Your task to perform on an android device: Open calendar and show me the third week of next month Image 0: 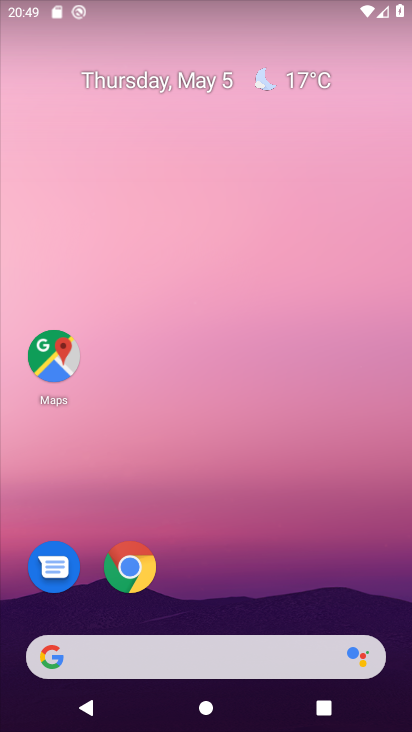
Step 0: drag from (280, 529) to (315, 26)
Your task to perform on an android device: Open calendar and show me the third week of next month Image 1: 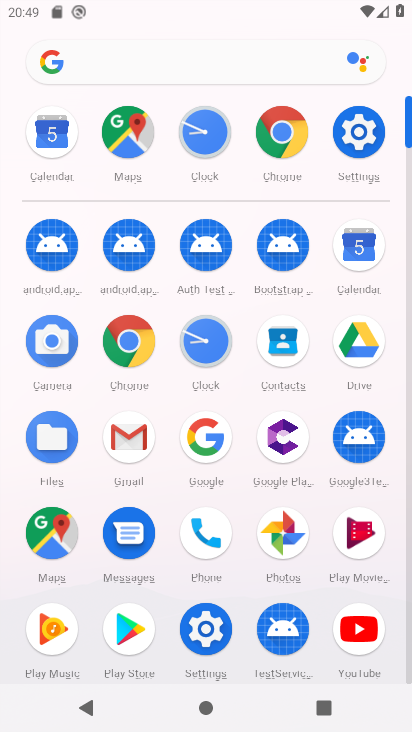
Step 1: click (351, 248)
Your task to perform on an android device: Open calendar and show me the third week of next month Image 2: 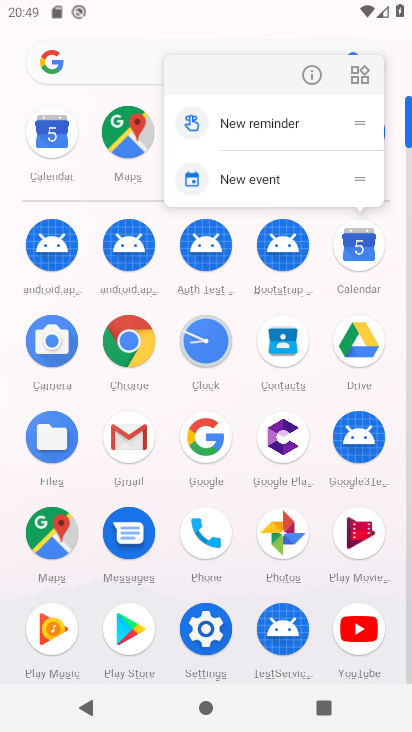
Step 2: click (361, 242)
Your task to perform on an android device: Open calendar and show me the third week of next month Image 3: 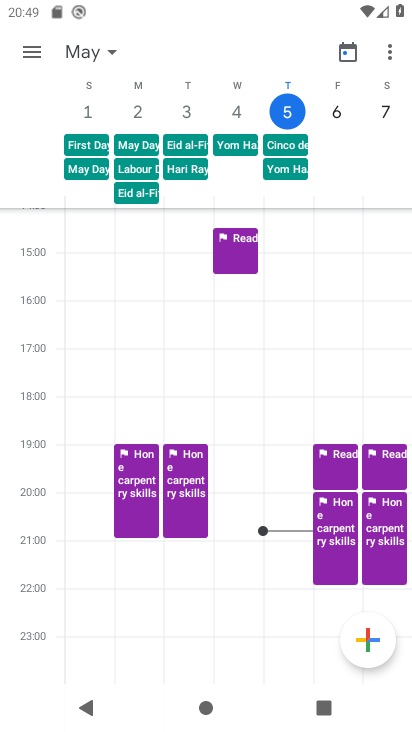
Step 3: task complete